Your task to perform on an android device: Go to Google Image 0: 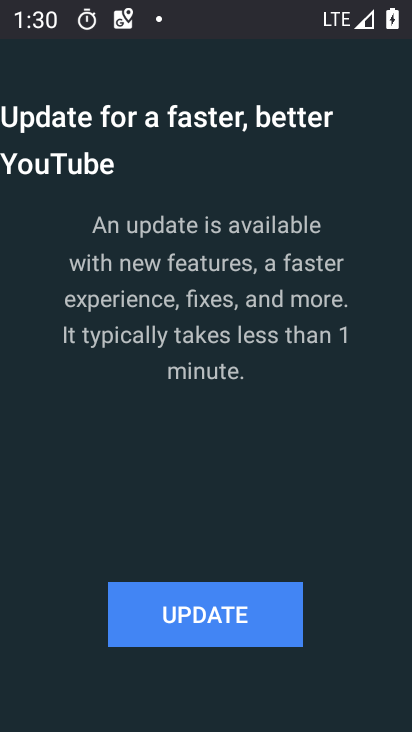
Step 0: press home button
Your task to perform on an android device: Go to Google Image 1: 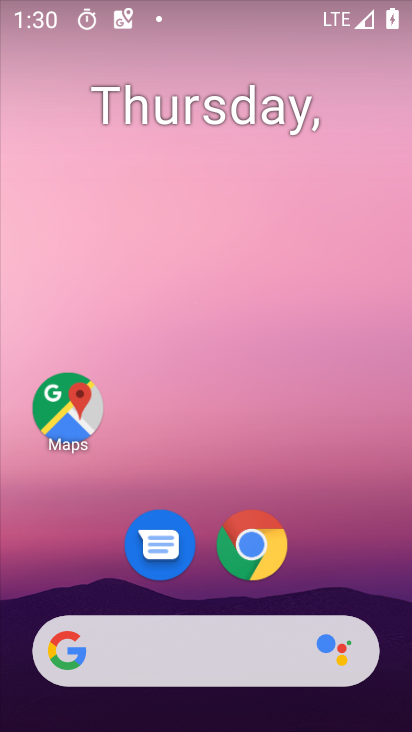
Step 1: drag from (316, 593) to (391, 11)
Your task to perform on an android device: Go to Google Image 2: 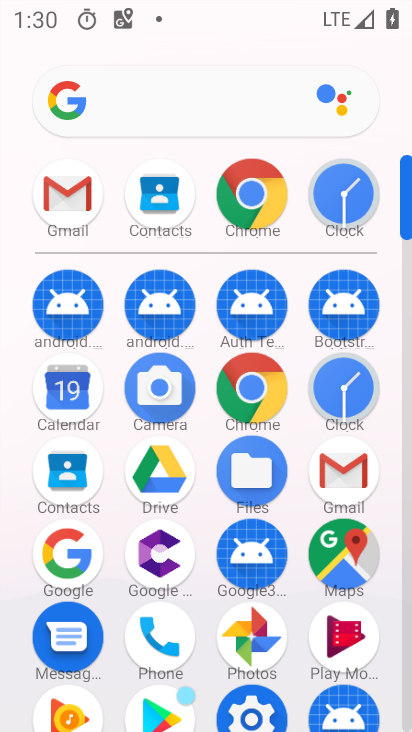
Step 2: click (269, 391)
Your task to perform on an android device: Go to Google Image 3: 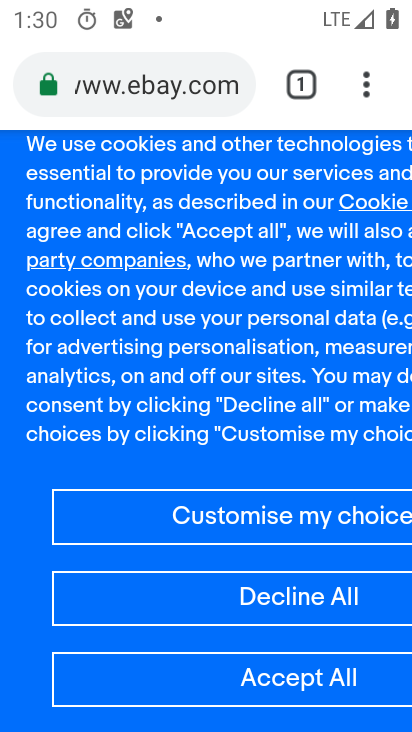
Step 3: click (365, 83)
Your task to perform on an android device: Go to Google Image 4: 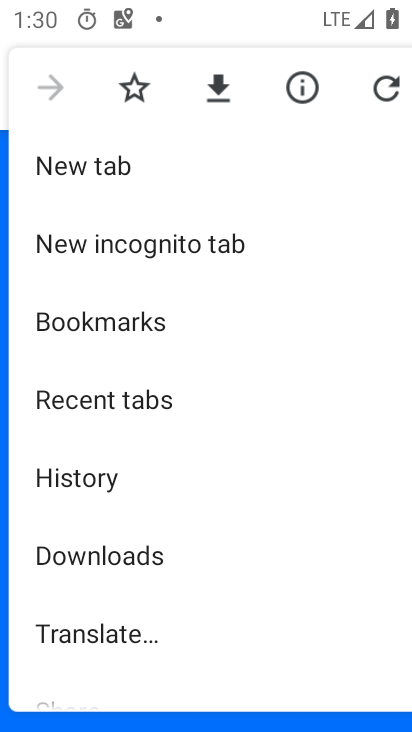
Step 4: click (228, 164)
Your task to perform on an android device: Go to Google Image 5: 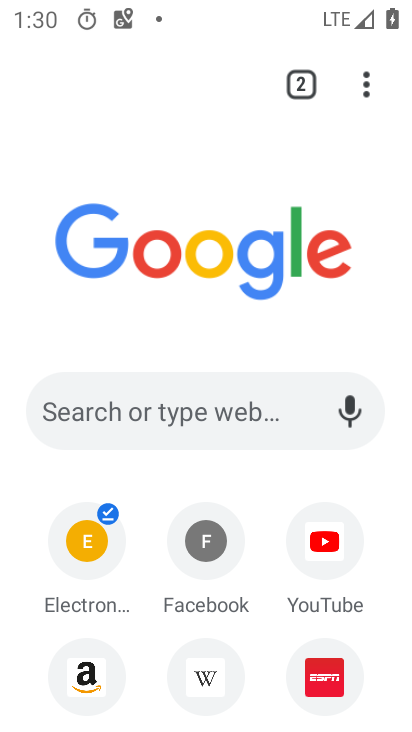
Step 5: task complete